Your task to perform on an android device: check data usage Image 0: 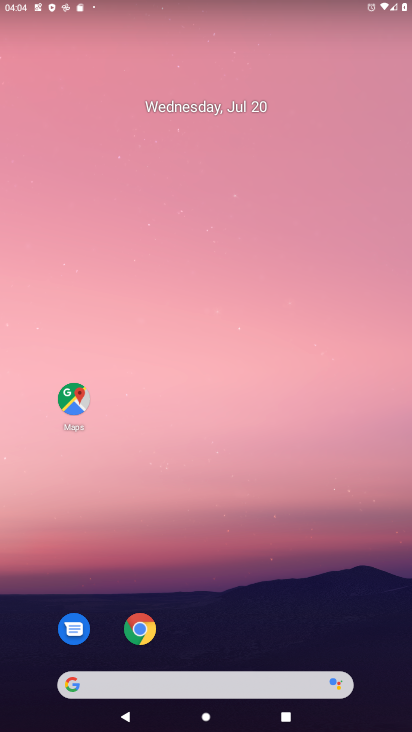
Step 0: drag from (369, 615) to (289, 83)
Your task to perform on an android device: check data usage Image 1: 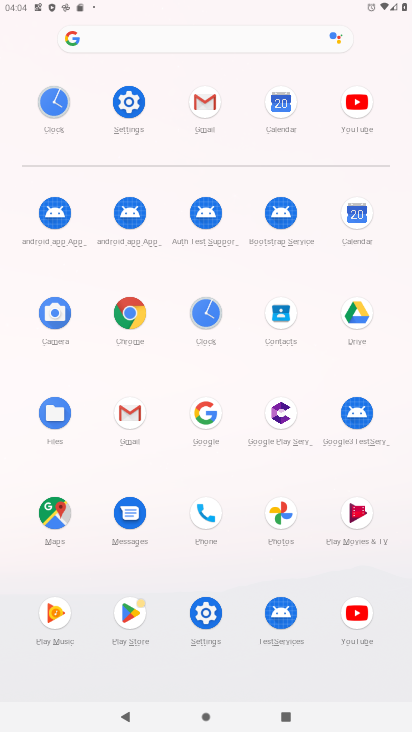
Step 1: click (202, 608)
Your task to perform on an android device: check data usage Image 2: 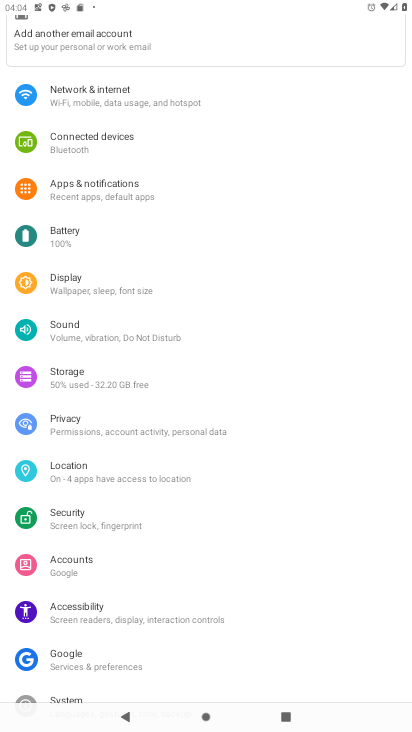
Step 2: click (111, 88)
Your task to perform on an android device: check data usage Image 3: 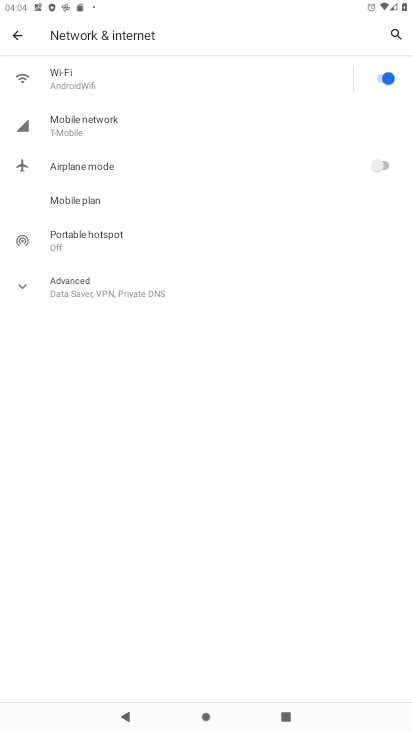
Step 3: click (94, 129)
Your task to perform on an android device: check data usage Image 4: 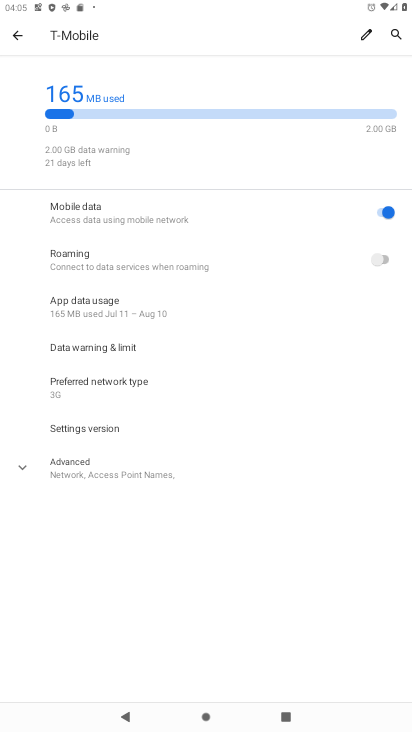
Step 4: task complete